Your task to perform on an android device: check google app version Image 0: 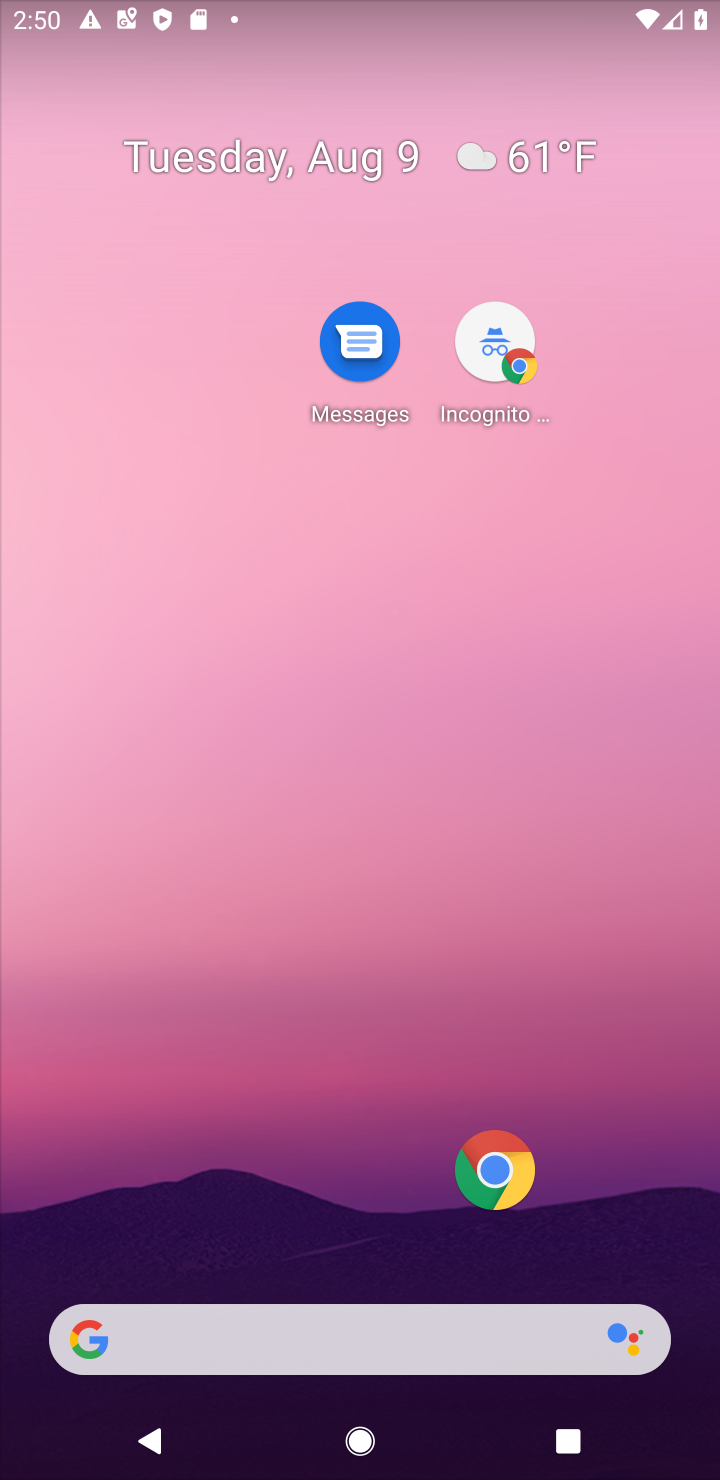
Step 0: click (89, 1343)
Your task to perform on an android device: check google app version Image 1: 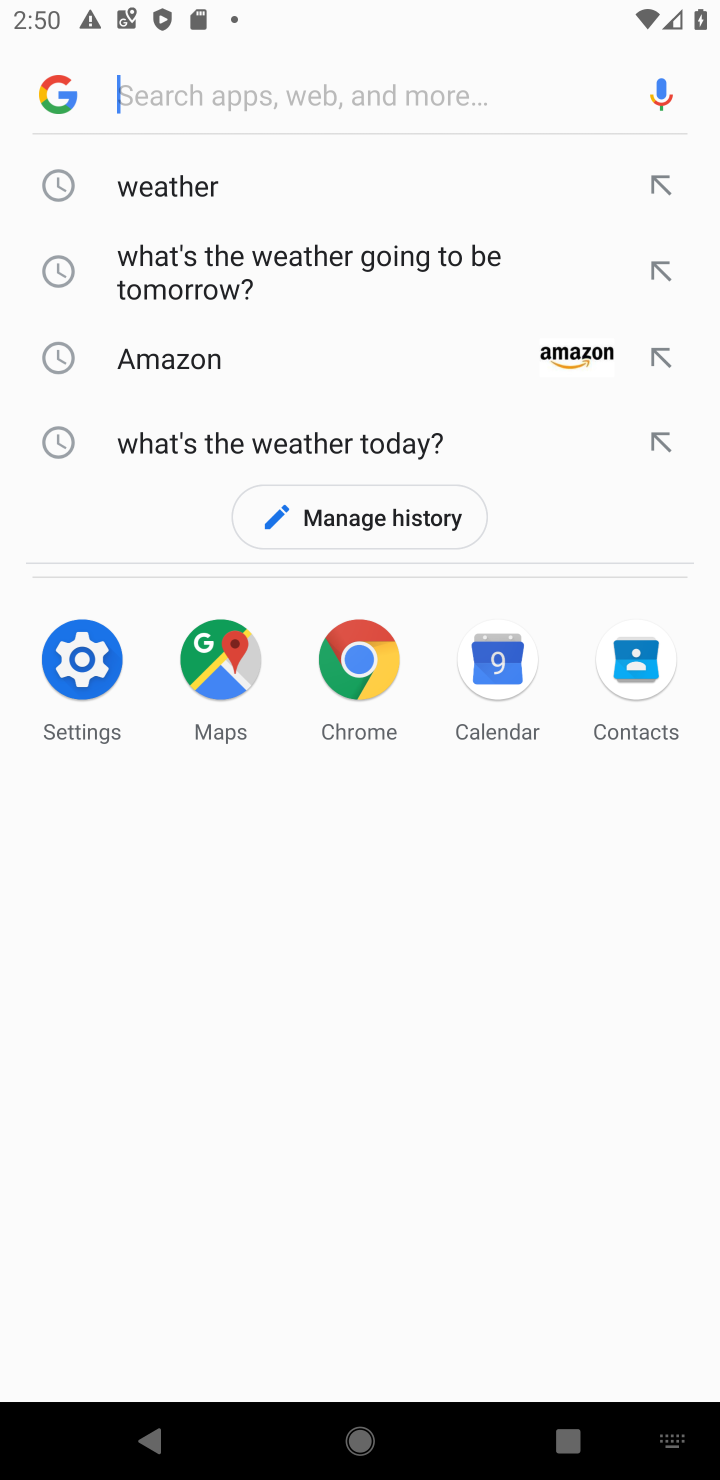
Step 1: click (57, 69)
Your task to perform on an android device: check google app version Image 2: 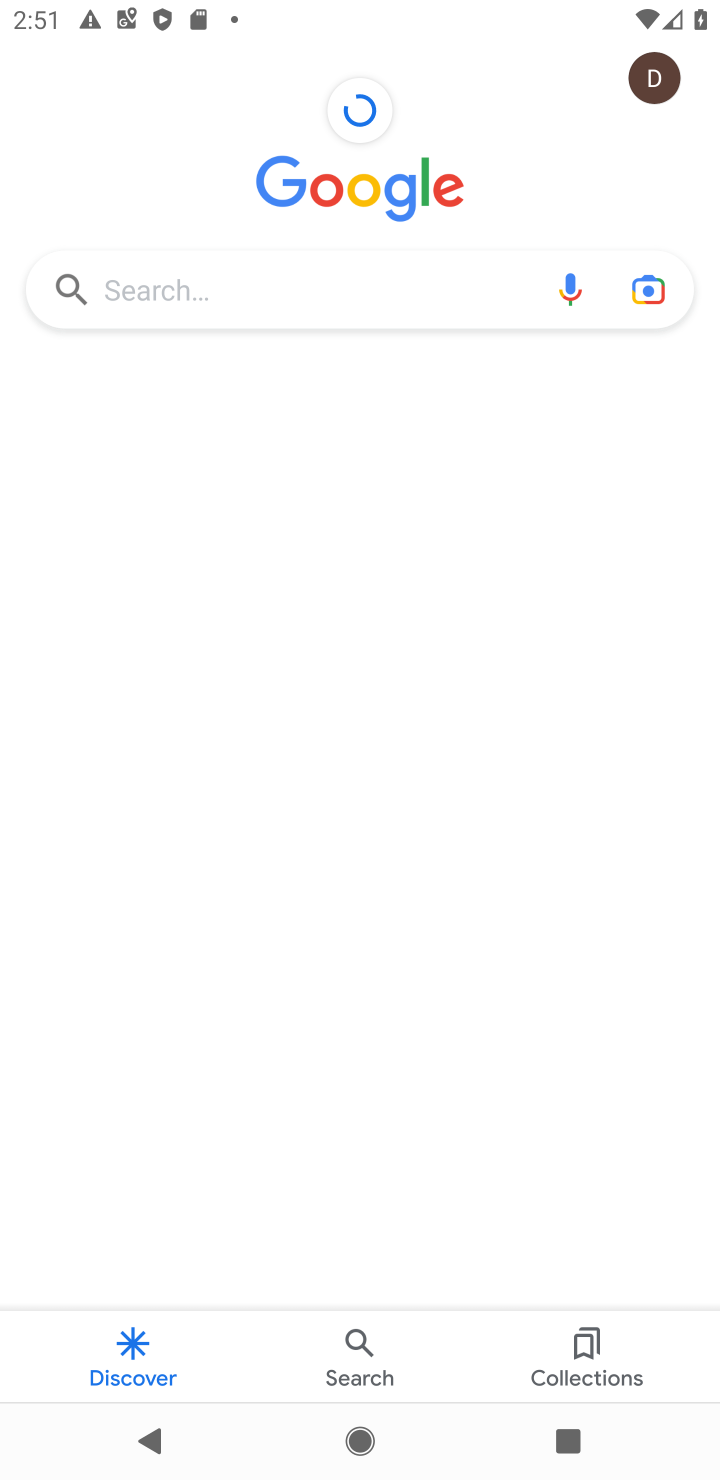
Step 2: click (659, 89)
Your task to perform on an android device: check google app version Image 3: 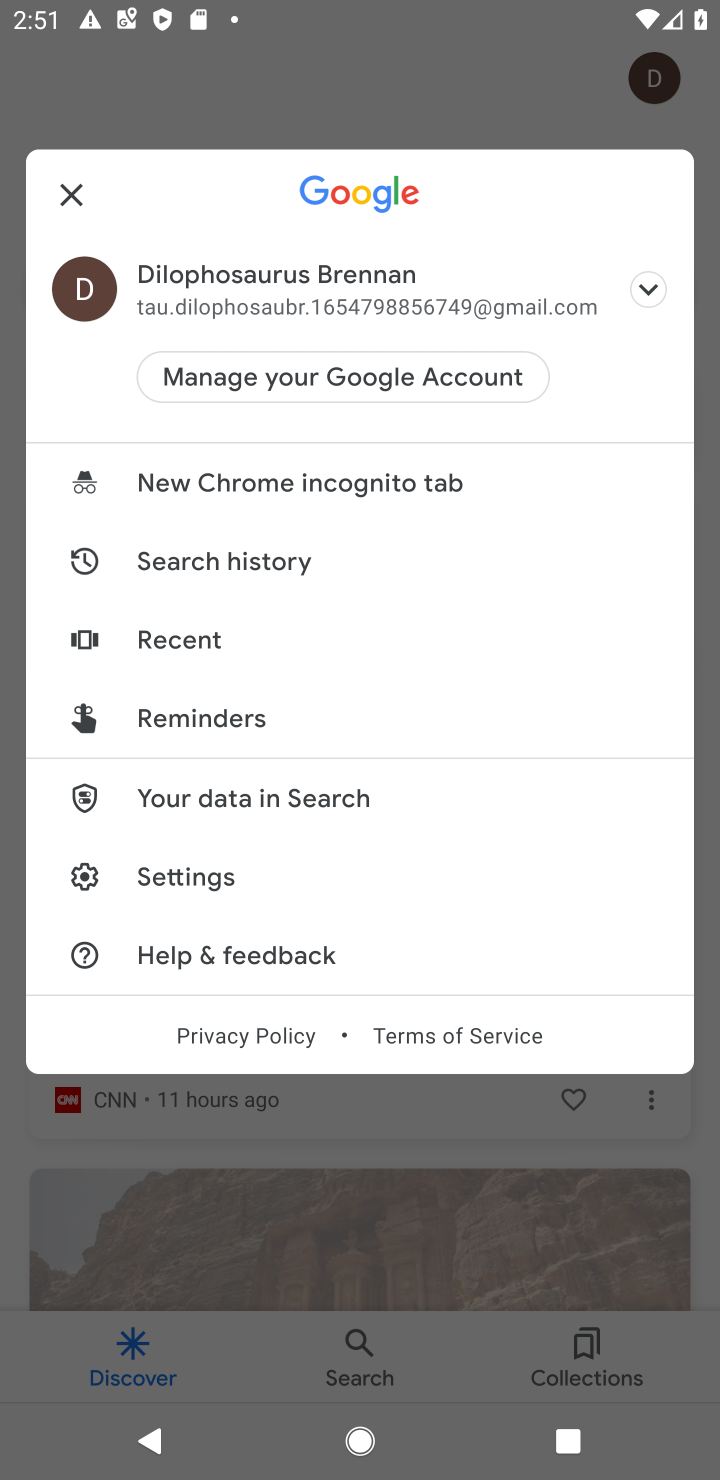
Step 3: click (224, 884)
Your task to perform on an android device: check google app version Image 4: 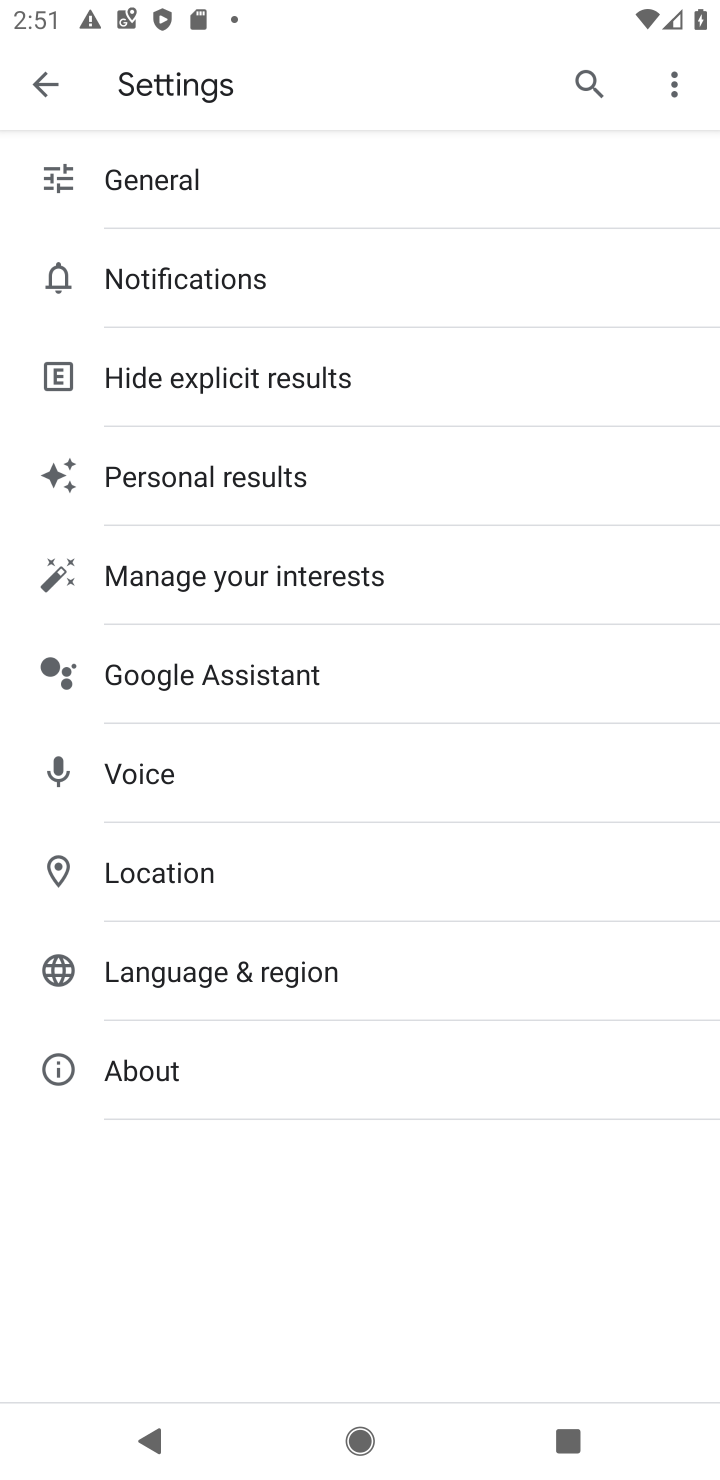
Step 4: click (133, 1066)
Your task to perform on an android device: check google app version Image 5: 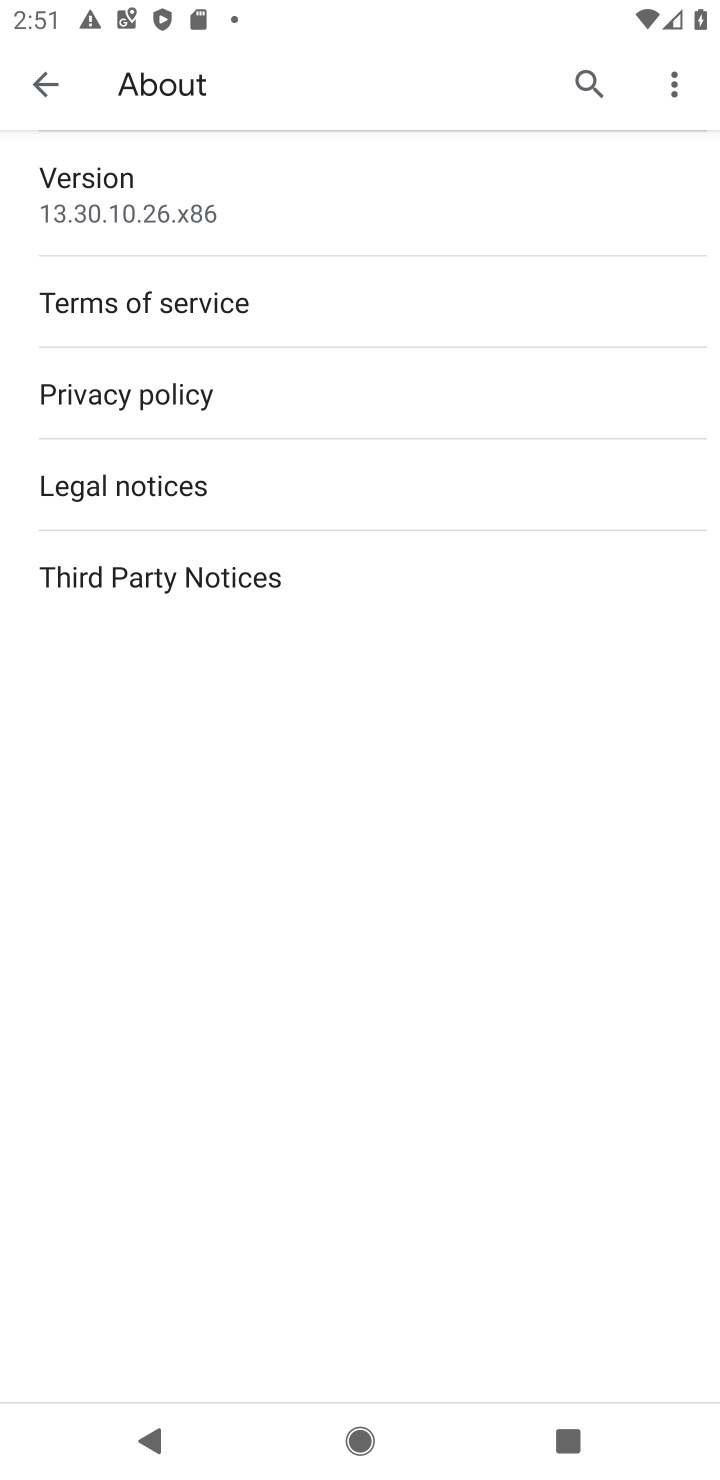
Step 5: task complete